Your task to perform on an android device: all mails in gmail Image 0: 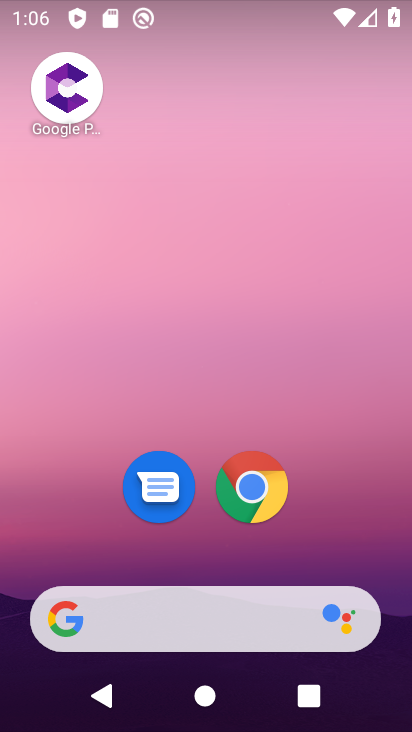
Step 0: drag from (271, 195) to (281, 129)
Your task to perform on an android device: all mails in gmail Image 1: 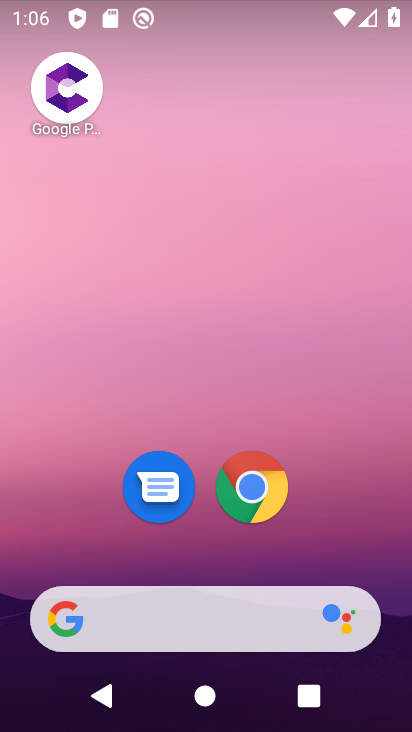
Step 1: click (208, 131)
Your task to perform on an android device: all mails in gmail Image 2: 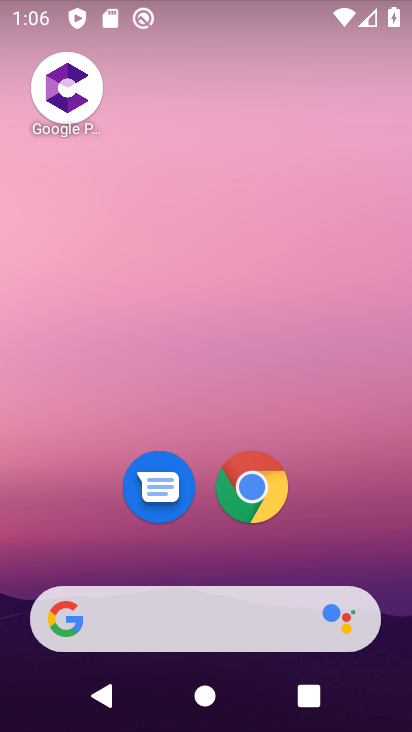
Step 2: drag from (204, 583) to (286, 53)
Your task to perform on an android device: all mails in gmail Image 3: 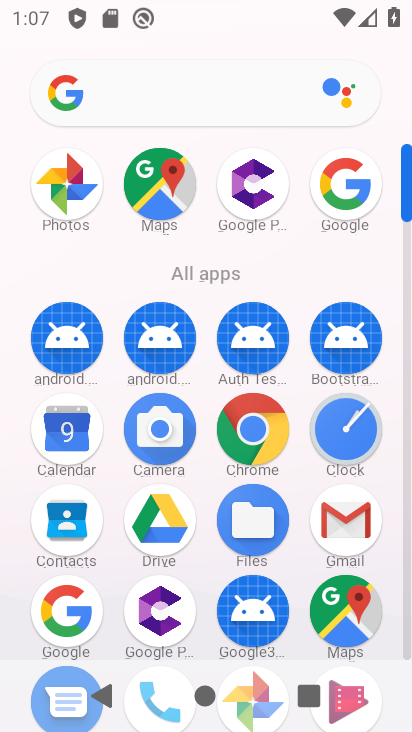
Step 3: click (343, 529)
Your task to perform on an android device: all mails in gmail Image 4: 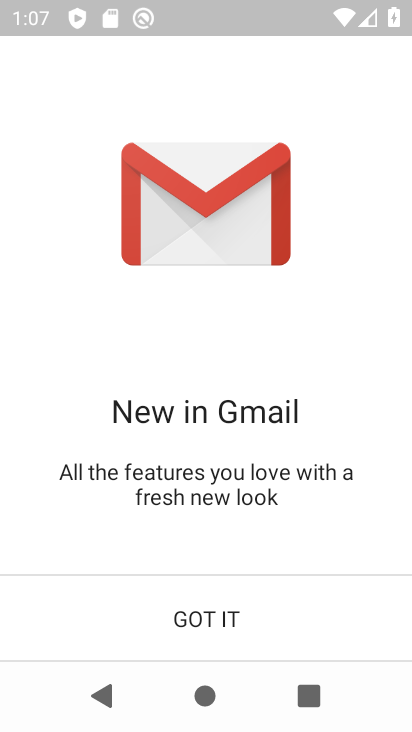
Step 4: click (213, 619)
Your task to perform on an android device: all mails in gmail Image 5: 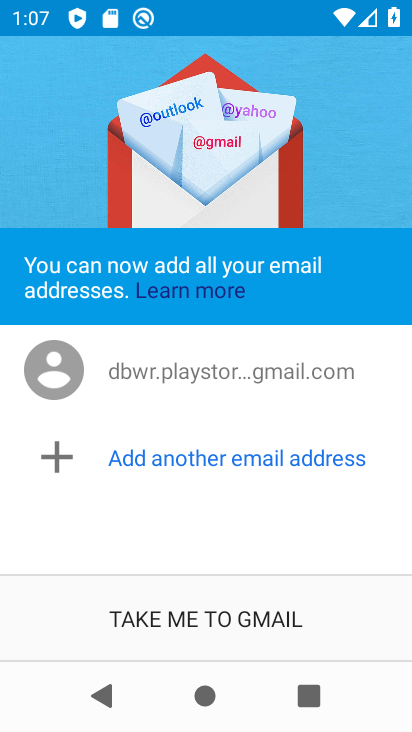
Step 5: click (213, 619)
Your task to perform on an android device: all mails in gmail Image 6: 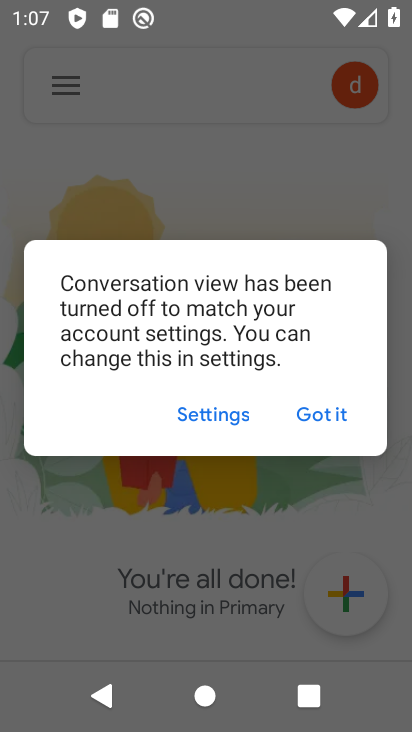
Step 6: click (327, 410)
Your task to perform on an android device: all mails in gmail Image 7: 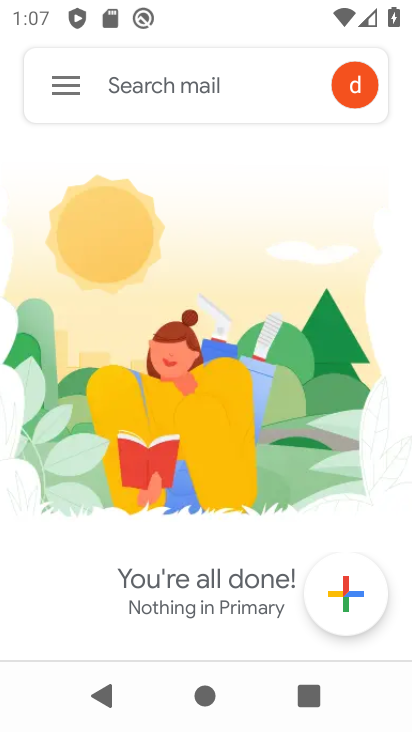
Step 7: click (61, 83)
Your task to perform on an android device: all mails in gmail Image 8: 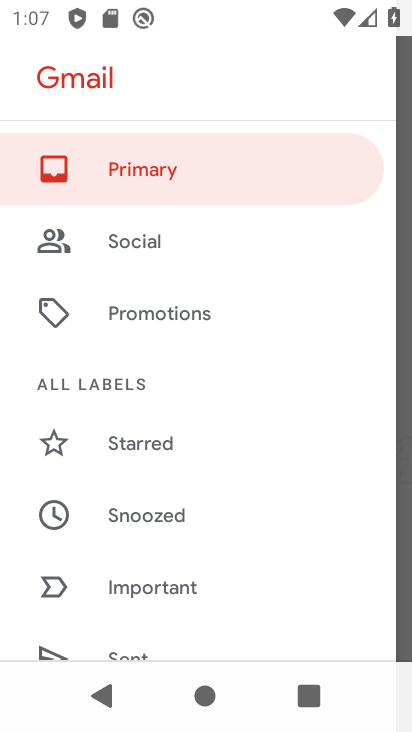
Step 8: drag from (154, 557) to (181, 232)
Your task to perform on an android device: all mails in gmail Image 9: 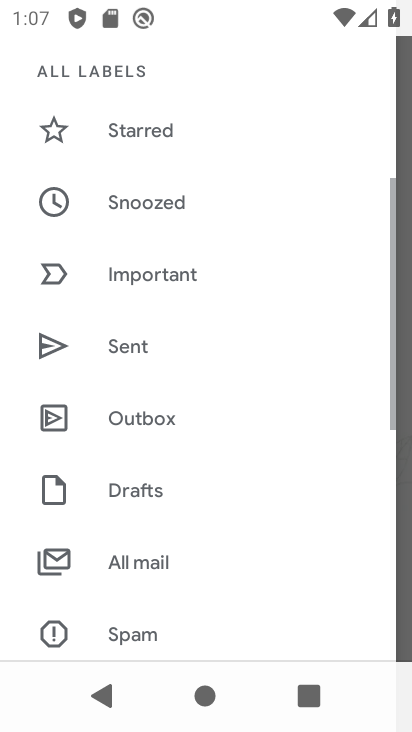
Step 9: drag from (164, 597) to (225, 213)
Your task to perform on an android device: all mails in gmail Image 10: 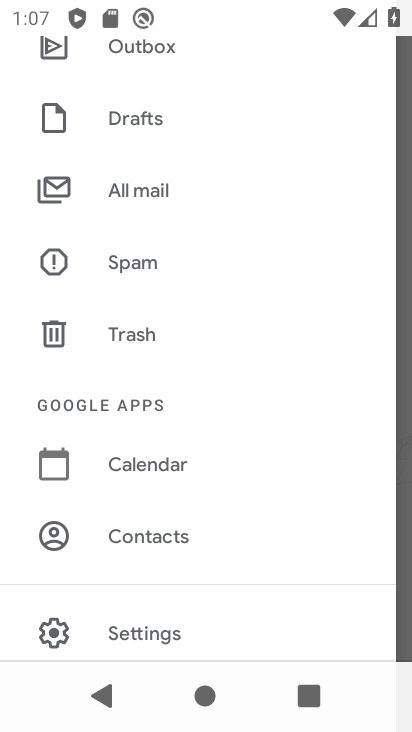
Step 10: click (120, 198)
Your task to perform on an android device: all mails in gmail Image 11: 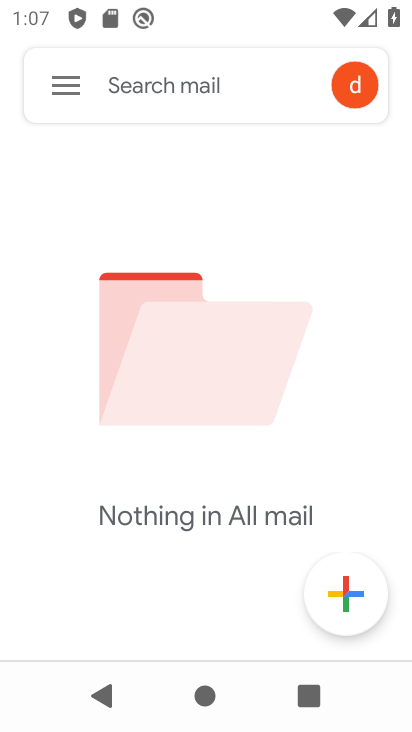
Step 11: task complete